Your task to perform on an android device: find which apps use the phone's location Image 0: 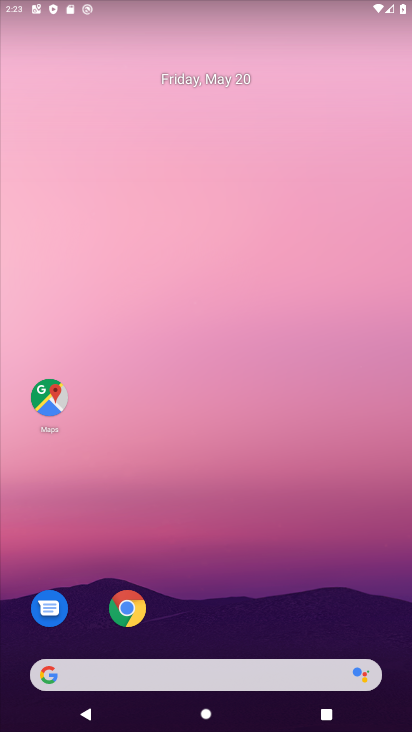
Step 0: drag from (205, 508) to (266, 157)
Your task to perform on an android device: find which apps use the phone's location Image 1: 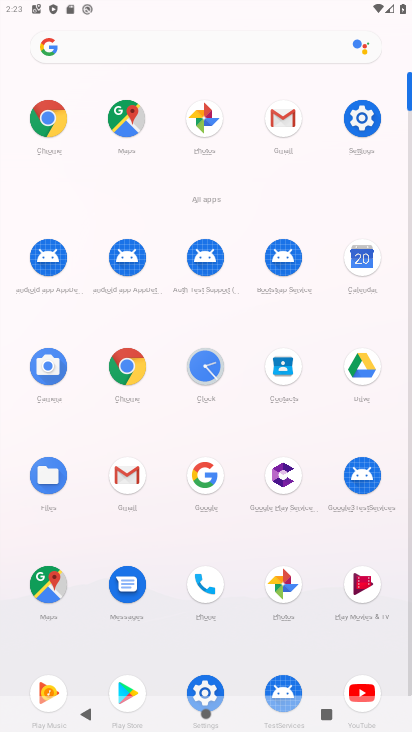
Step 1: click (355, 117)
Your task to perform on an android device: find which apps use the phone's location Image 2: 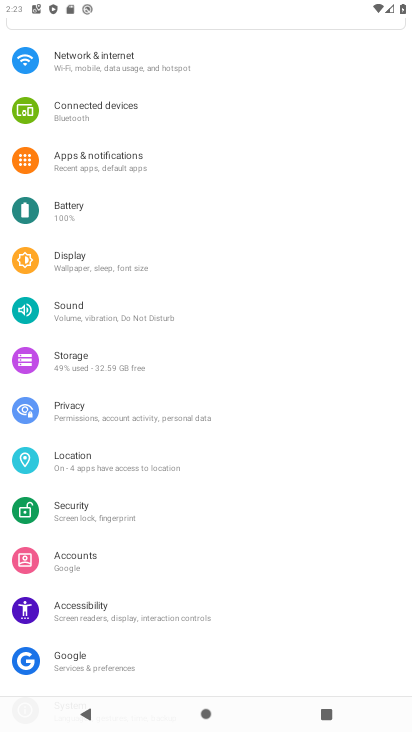
Step 2: click (88, 454)
Your task to perform on an android device: find which apps use the phone's location Image 3: 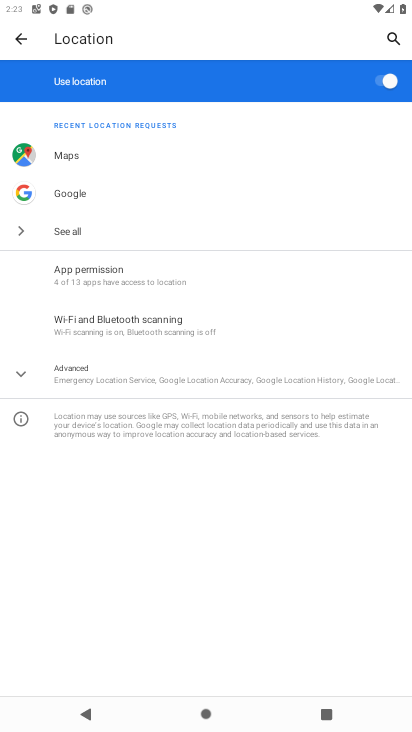
Step 3: click (118, 283)
Your task to perform on an android device: find which apps use the phone's location Image 4: 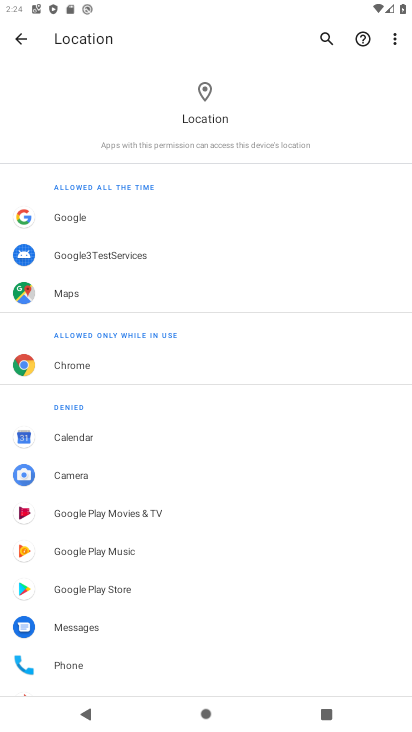
Step 4: task complete